Your task to perform on an android device: open chrome privacy settings Image 0: 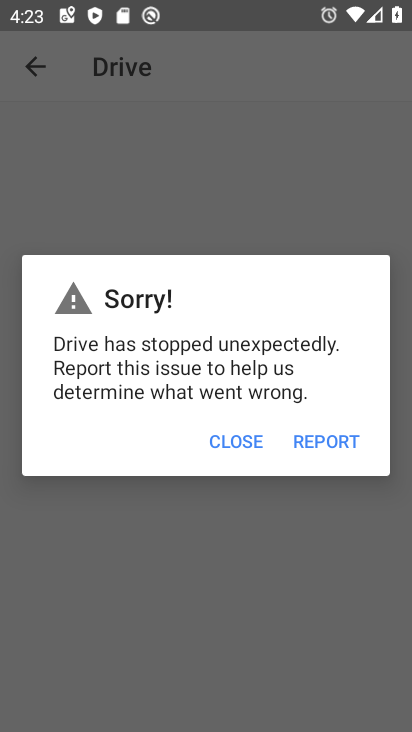
Step 0: press home button
Your task to perform on an android device: open chrome privacy settings Image 1: 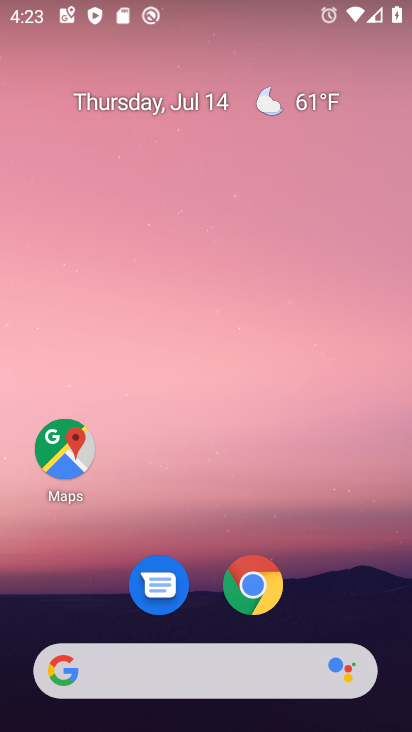
Step 1: click (251, 578)
Your task to perform on an android device: open chrome privacy settings Image 2: 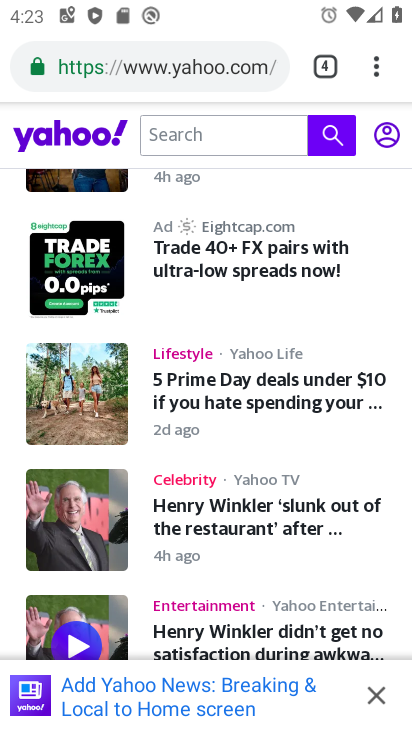
Step 2: click (376, 69)
Your task to perform on an android device: open chrome privacy settings Image 3: 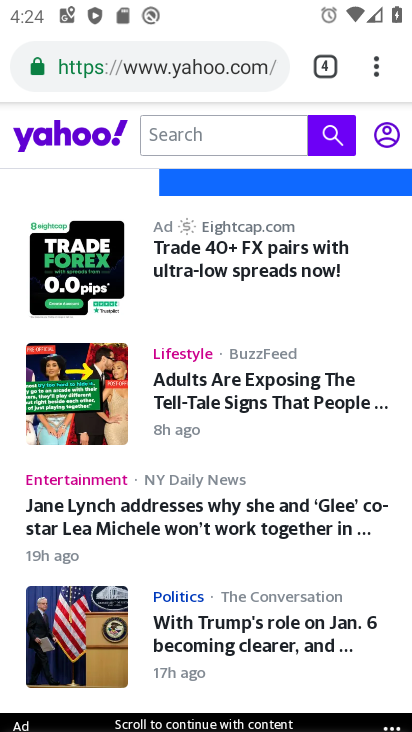
Step 3: click (376, 72)
Your task to perform on an android device: open chrome privacy settings Image 4: 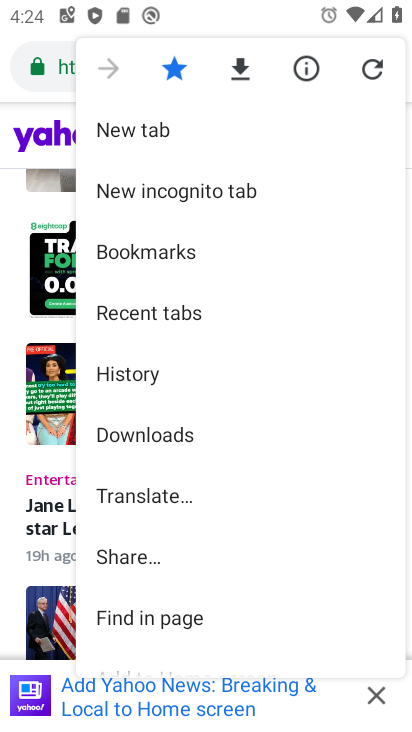
Step 4: drag from (214, 571) to (240, 234)
Your task to perform on an android device: open chrome privacy settings Image 5: 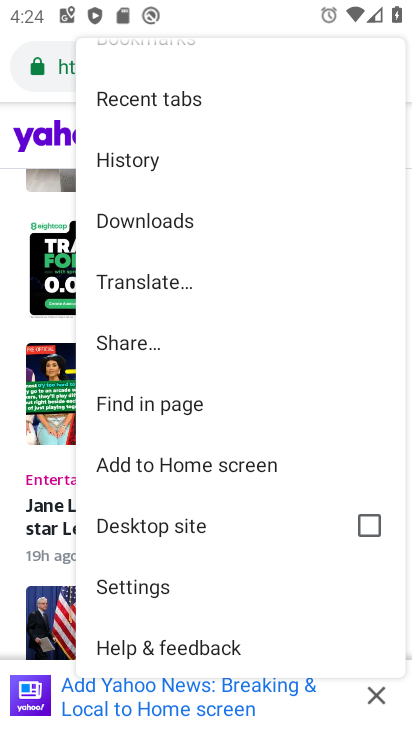
Step 5: click (152, 581)
Your task to perform on an android device: open chrome privacy settings Image 6: 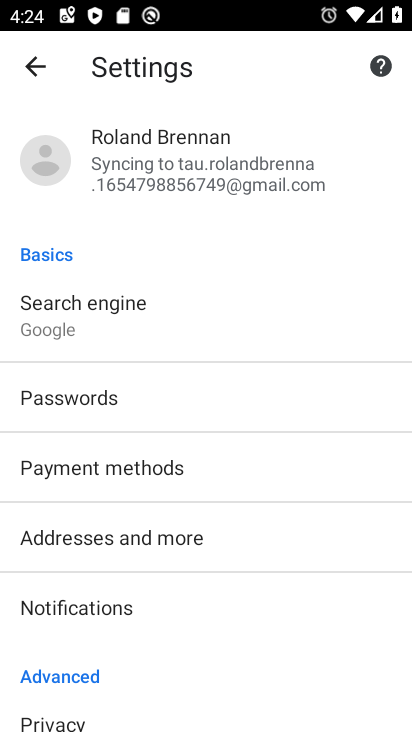
Step 6: drag from (243, 591) to (246, 418)
Your task to perform on an android device: open chrome privacy settings Image 7: 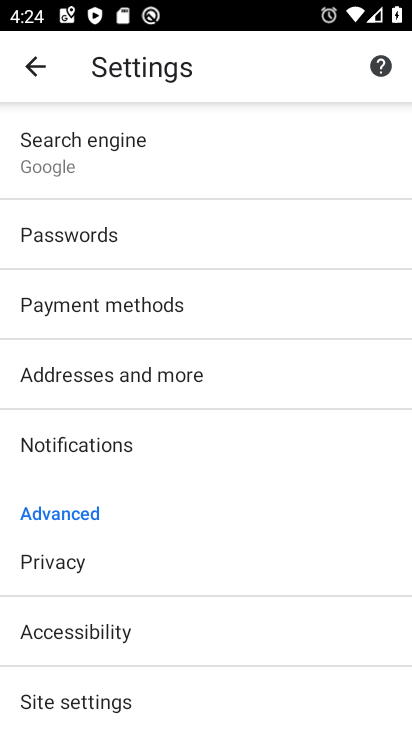
Step 7: click (179, 574)
Your task to perform on an android device: open chrome privacy settings Image 8: 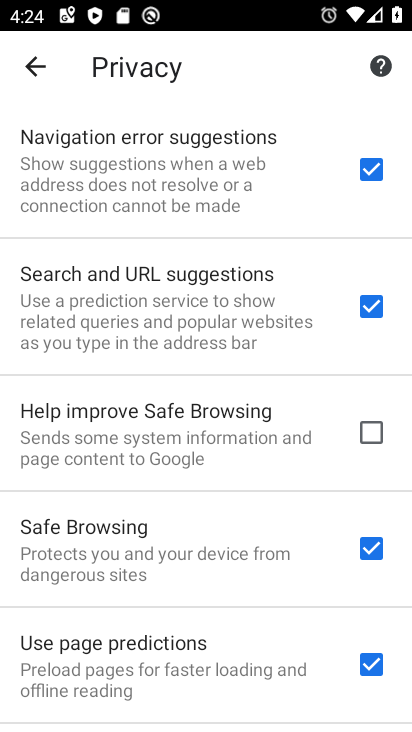
Step 8: task complete